Your task to perform on an android device: read, delete, or share a saved page in the chrome app Image 0: 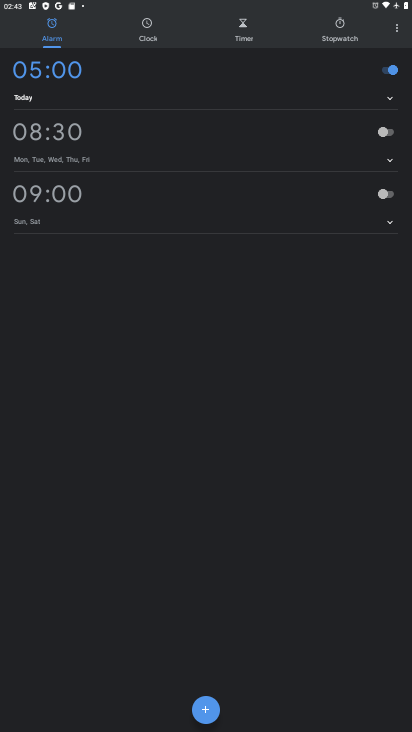
Step 0: press home button
Your task to perform on an android device: read, delete, or share a saved page in the chrome app Image 1: 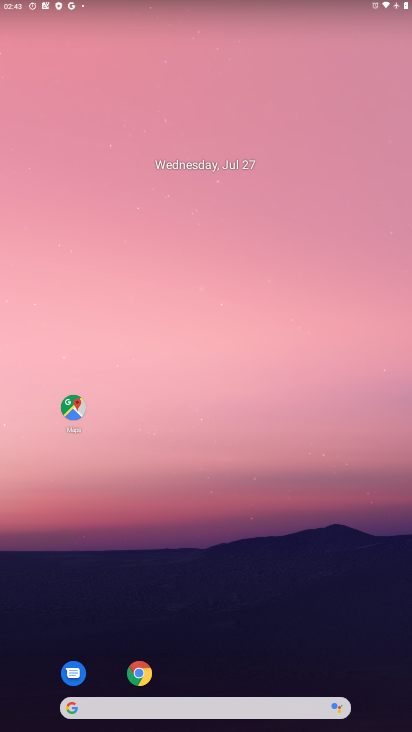
Step 1: click (145, 682)
Your task to perform on an android device: read, delete, or share a saved page in the chrome app Image 2: 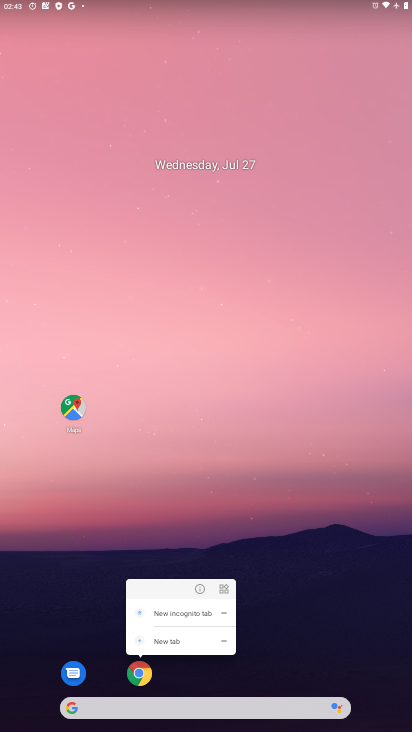
Step 2: click (145, 682)
Your task to perform on an android device: read, delete, or share a saved page in the chrome app Image 3: 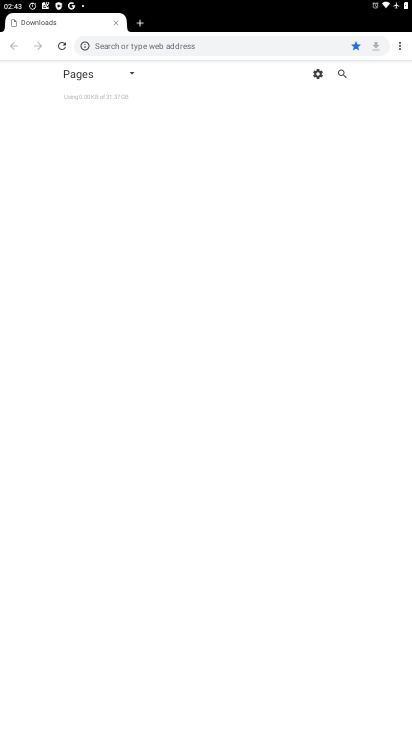
Step 3: click (133, 77)
Your task to perform on an android device: read, delete, or share a saved page in the chrome app Image 4: 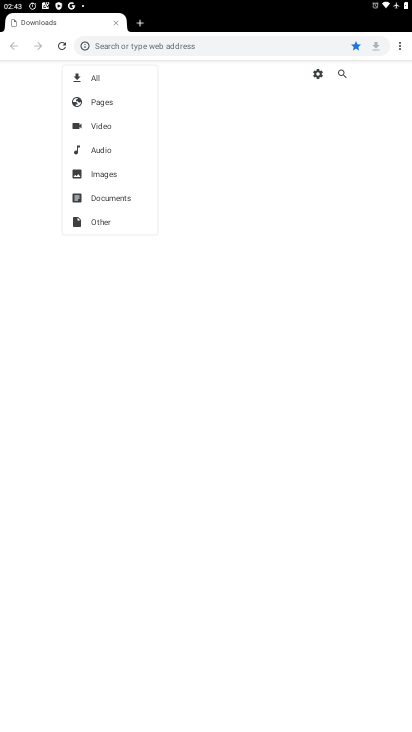
Step 4: task complete